Your task to perform on an android device: Check the weather Image 0: 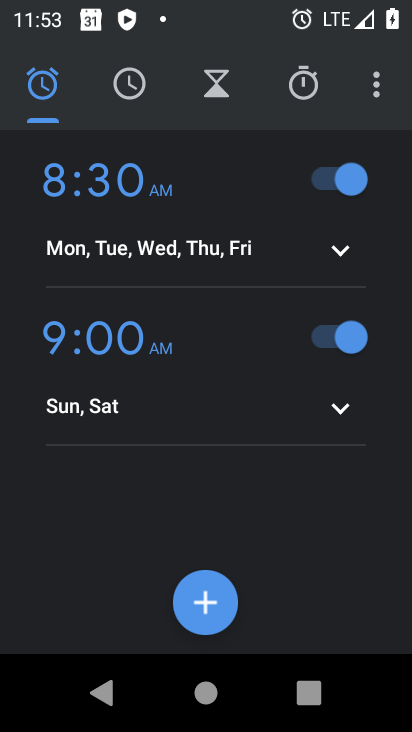
Step 0: press back button
Your task to perform on an android device: Check the weather Image 1: 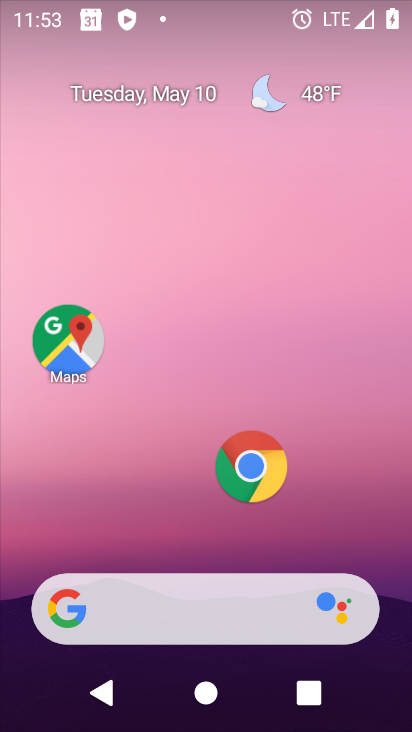
Step 1: click (295, 91)
Your task to perform on an android device: Check the weather Image 2: 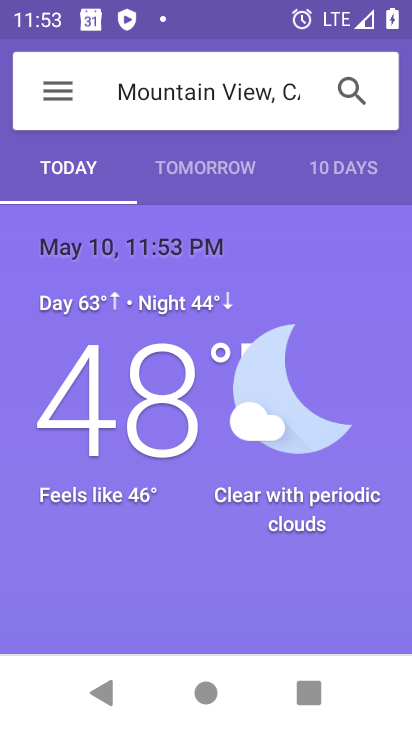
Step 2: task complete